Your task to perform on an android device: turn off priority inbox in the gmail app Image 0: 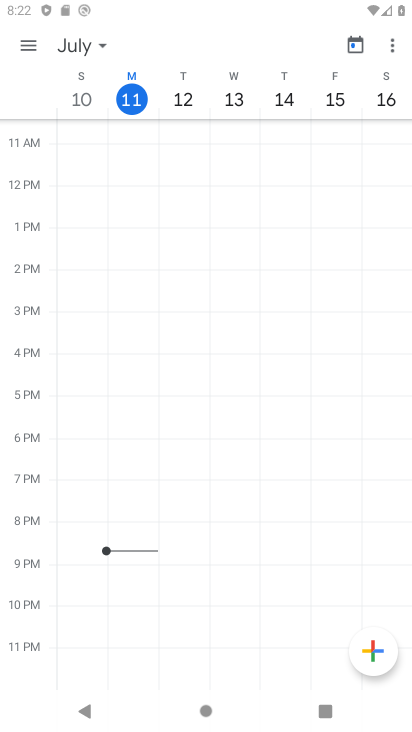
Step 0: press home button
Your task to perform on an android device: turn off priority inbox in the gmail app Image 1: 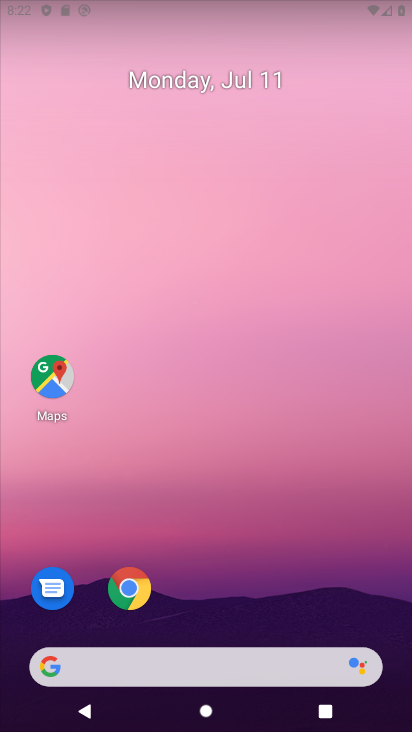
Step 1: drag from (212, 596) to (317, 6)
Your task to perform on an android device: turn off priority inbox in the gmail app Image 2: 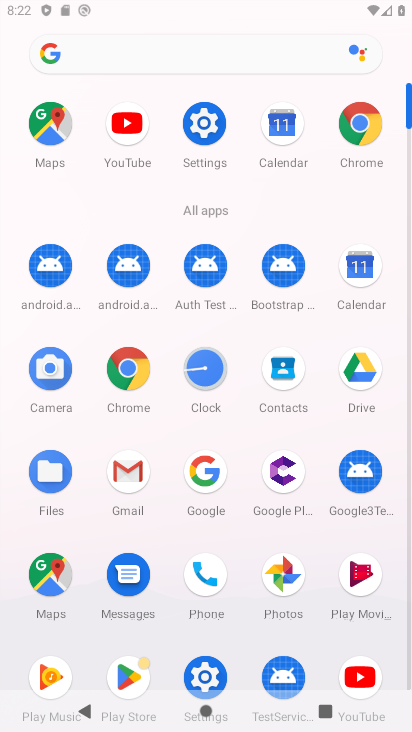
Step 2: click (136, 476)
Your task to perform on an android device: turn off priority inbox in the gmail app Image 3: 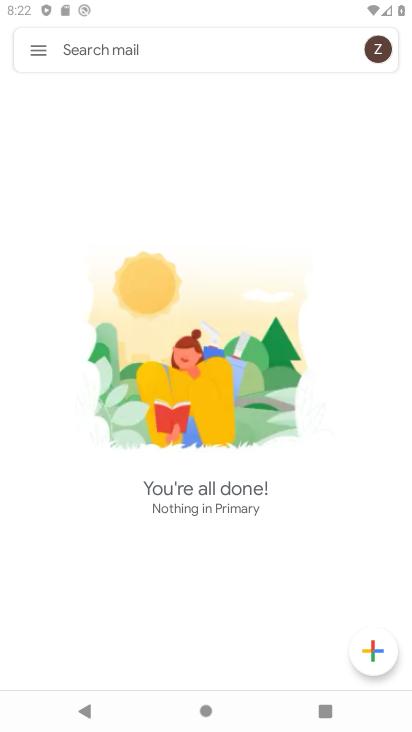
Step 3: click (35, 54)
Your task to perform on an android device: turn off priority inbox in the gmail app Image 4: 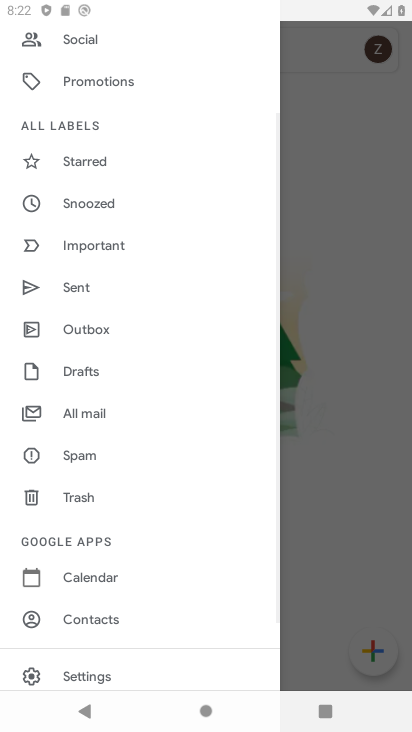
Step 4: click (112, 675)
Your task to perform on an android device: turn off priority inbox in the gmail app Image 5: 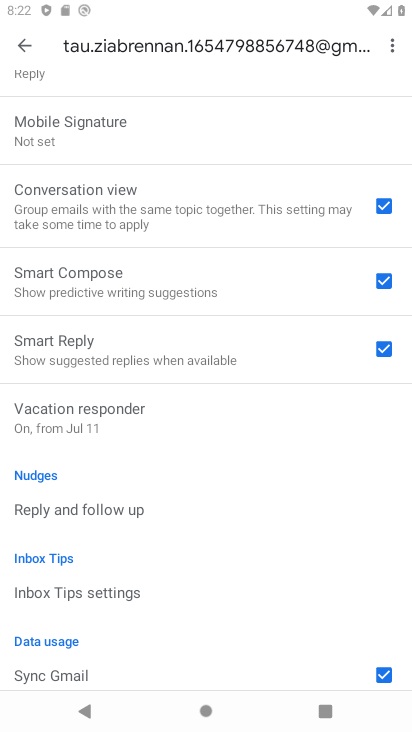
Step 5: drag from (225, 157) to (134, 709)
Your task to perform on an android device: turn off priority inbox in the gmail app Image 6: 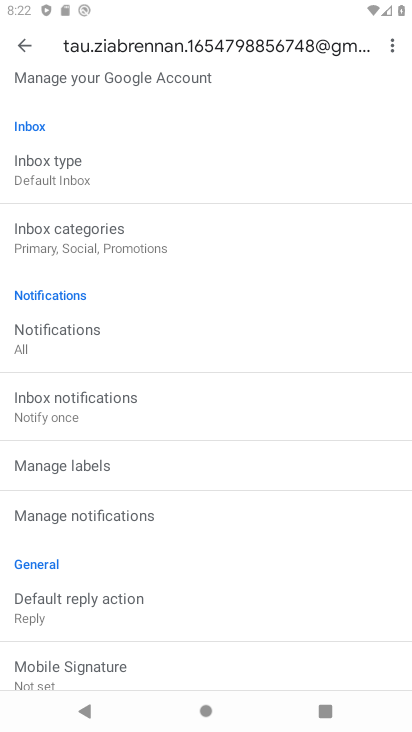
Step 6: click (44, 174)
Your task to perform on an android device: turn off priority inbox in the gmail app Image 7: 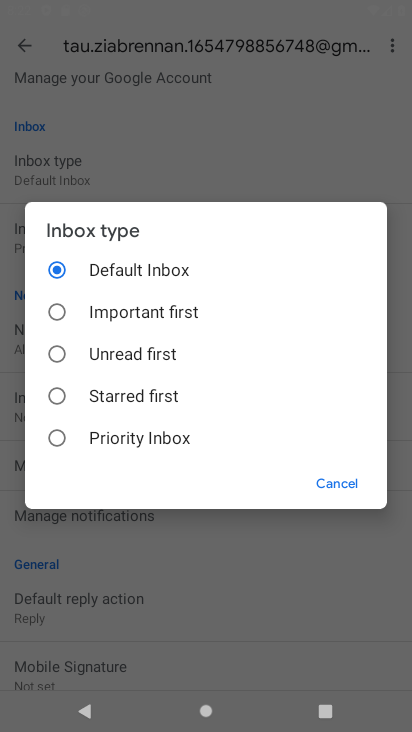
Step 7: task complete